Your task to perform on an android device: turn off location Image 0: 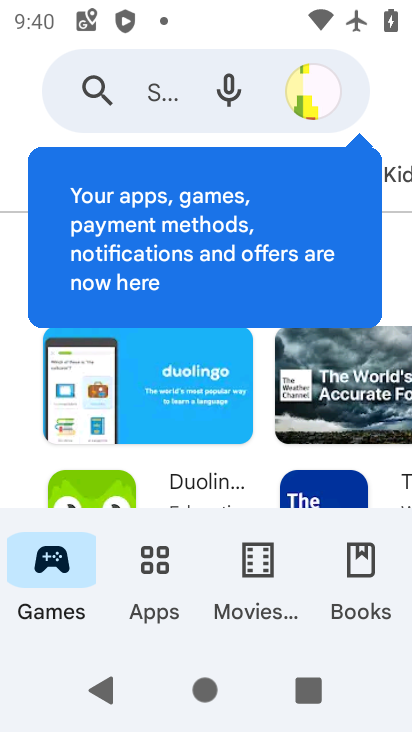
Step 0: press home button
Your task to perform on an android device: turn off location Image 1: 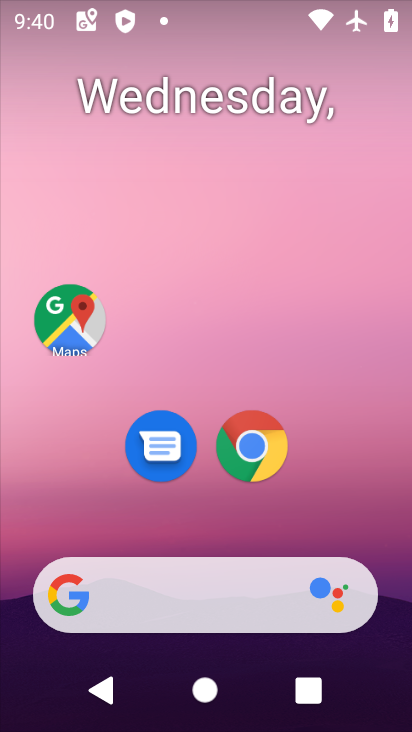
Step 1: drag from (194, 451) to (303, 103)
Your task to perform on an android device: turn off location Image 2: 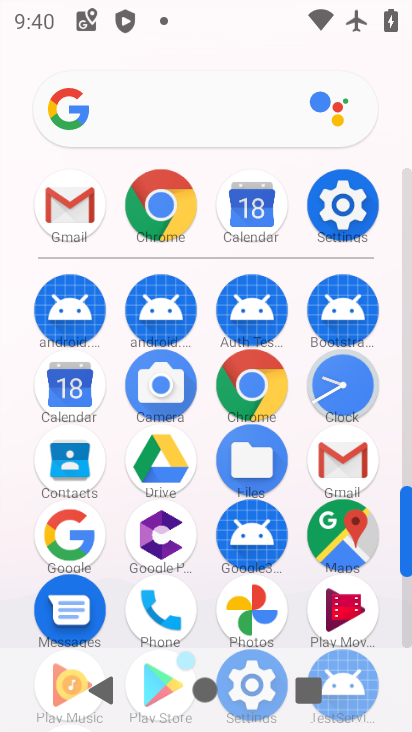
Step 2: click (347, 200)
Your task to perform on an android device: turn off location Image 3: 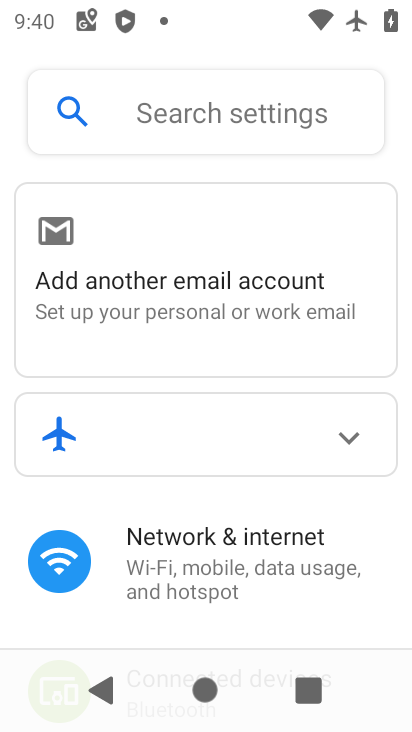
Step 3: drag from (264, 605) to (304, 155)
Your task to perform on an android device: turn off location Image 4: 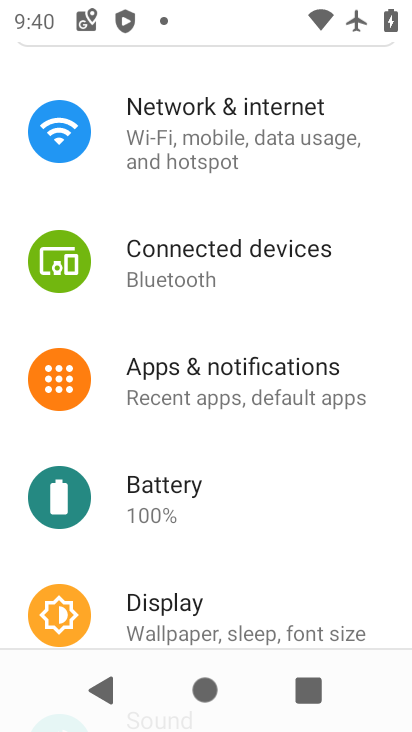
Step 4: drag from (232, 434) to (252, 235)
Your task to perform on an android device: turn off location Image 5: 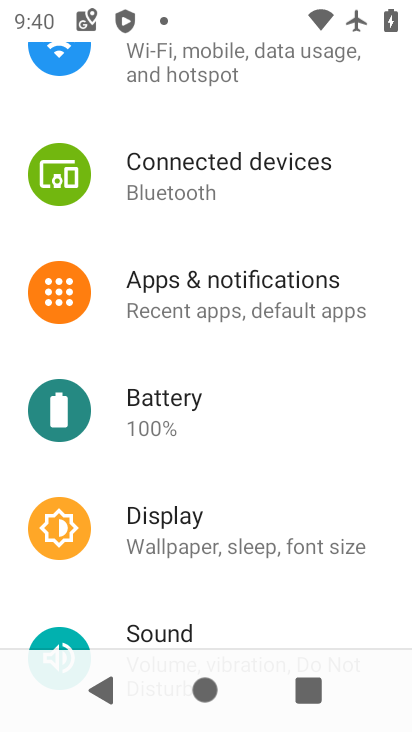
Step 5: drag from (242, 595) to (252, 239)
Your task to perform on an android device: turn off location Image 6: 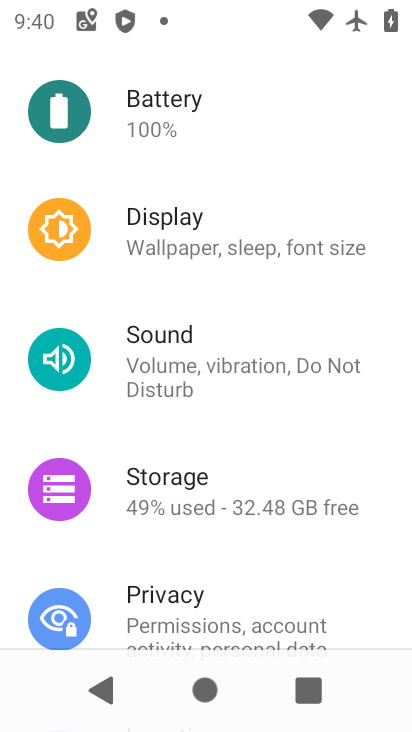
Step 6: drag from (198, 549) to (242, 146)
Your task to perform on an android device: turn off location Image 7: 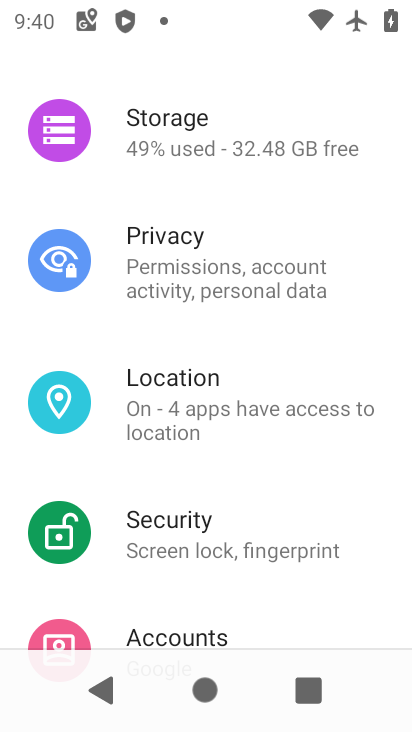
Step 7: click (201, 386)
Your task to perform on an android device: turn off location Image 8: 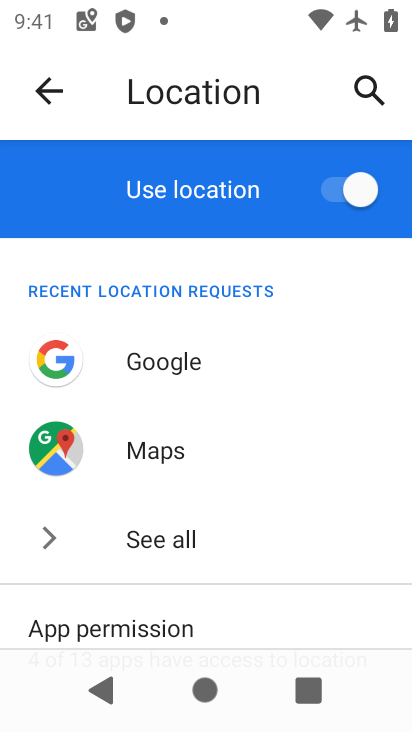
Step 8: click (338, 192)
Your task to perform on an android device: turn off location Image 9: 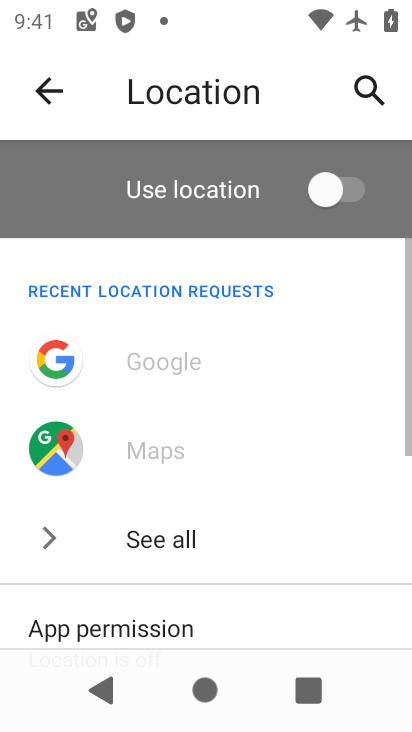
Step 9: task complete